Your task to perform on an android device: Go to Reddit.com Image 0: 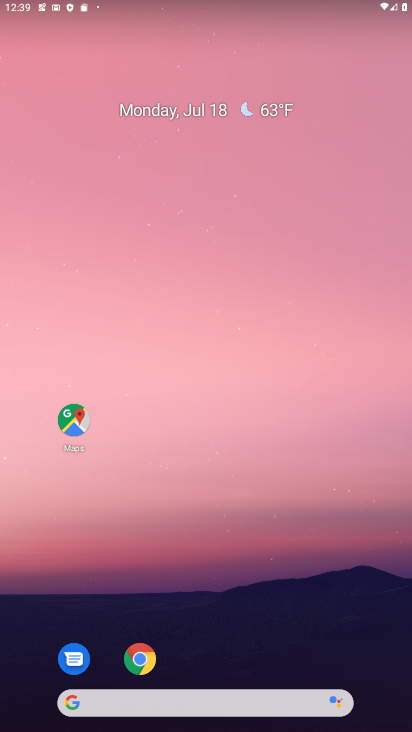
Step 0: drag from (202, 696) to (207, 212)
Your task to perform on an android device: Go to Reddit.com Image 1: 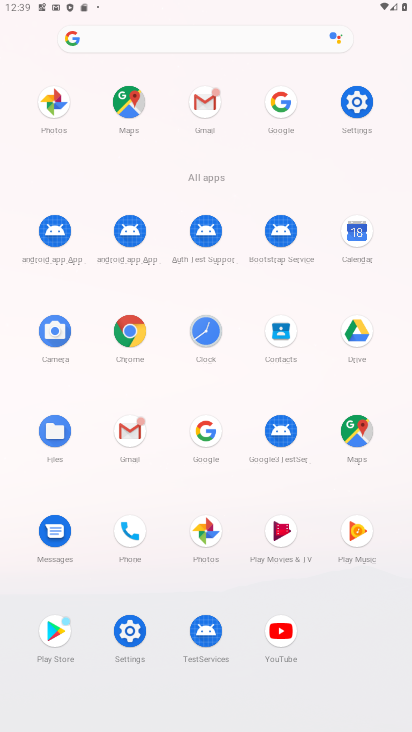
Step 1: click (293, 92)
Your task to perform on an android device: Go to Reddit.com Image 2: 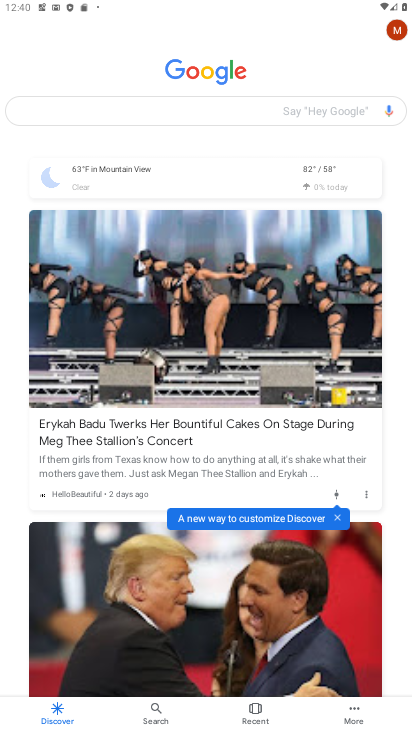
Step 2: click (166, 109)
Your task to perform on an android device: Go to Reddit.com Image 3: 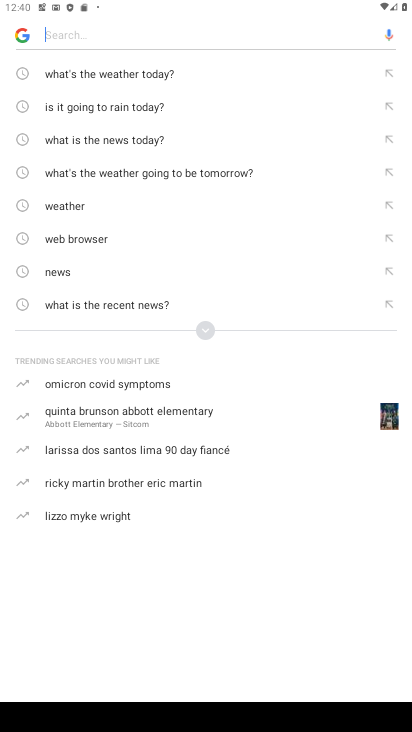
Step 3: click (205, 331)
Your task to perform on an android device: Go to Reddit.com Image 4: 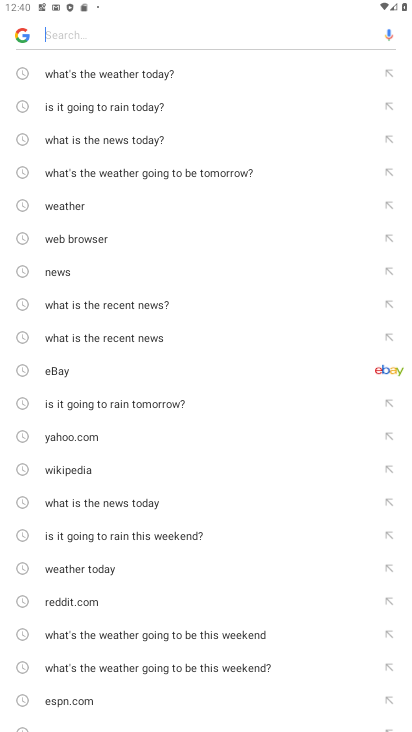
Step 4: click (79, 589)
Your task to perform on an android device: Go to Reddit.com Image 5: 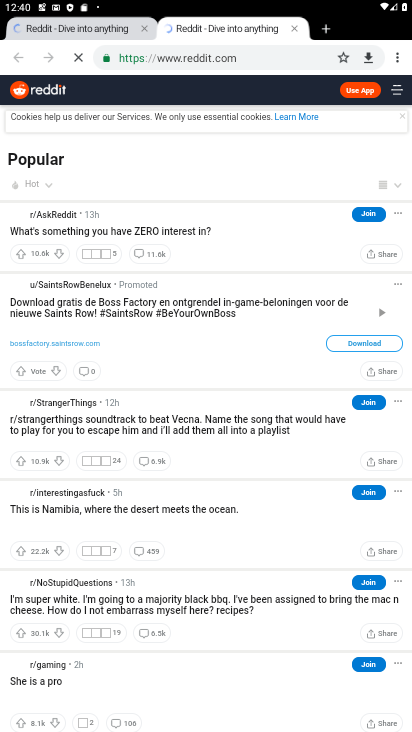
Step 5: task complete